Your task to perform on an android device: Go to Android settings Image 0: 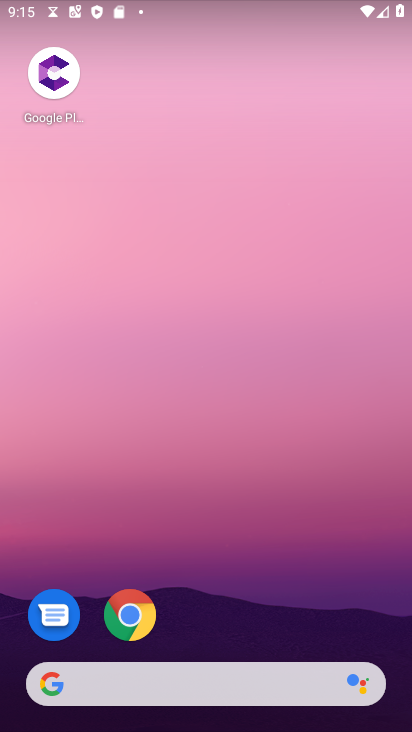
Step 0: drag from (175, 578) to (166, 70)
Your task to perform on an android device: Go to Android settings Image 1: 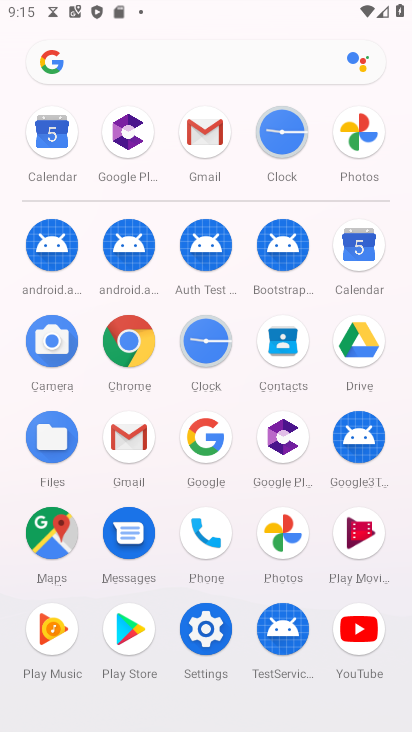
Step 1: click (214, 632)
Your task to perform on an android device: Go to Android settings Image 2: 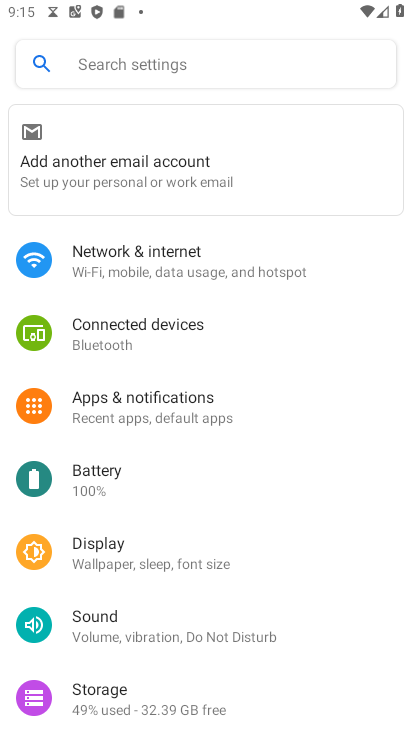
Step 2: task complete